Your task to perform on an android device: Go to network settings Image 0: 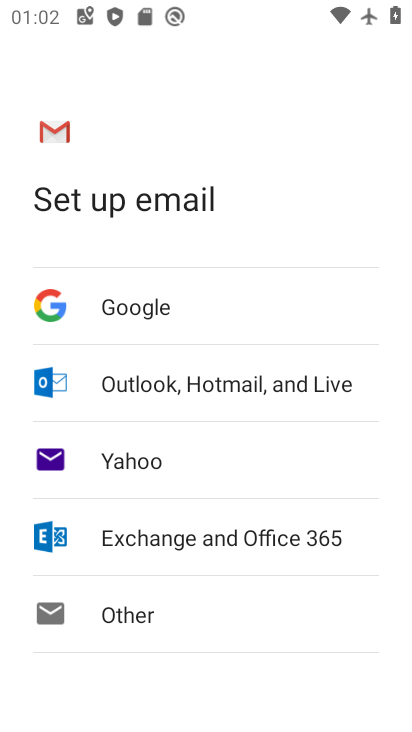
Step 0: press home button
Your task to perform on an android device: Go to network settings Image 1: 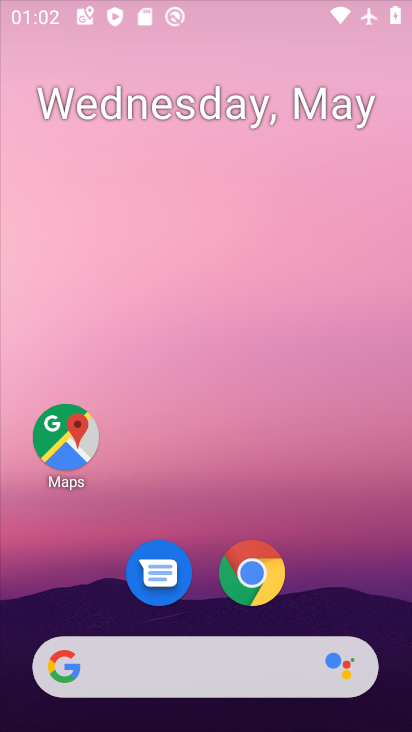
Step 1: drag from (304, 626) to (319, 136)
Your task to perform on an android device: Go to network settings Image 2: 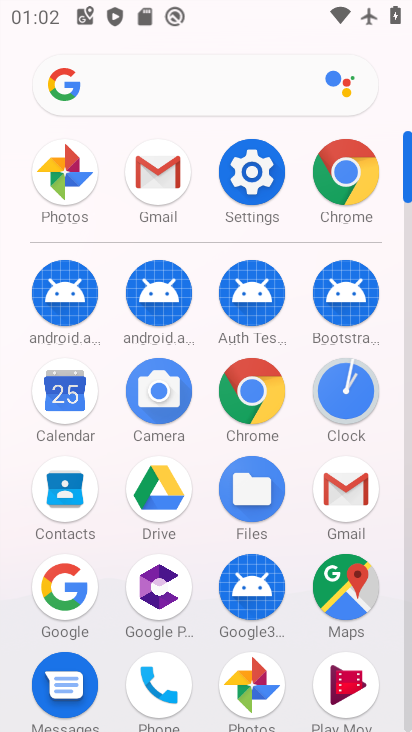
Step 2: click (247, 160)
Your task to perform on an android device: Go to network settings Image 3: 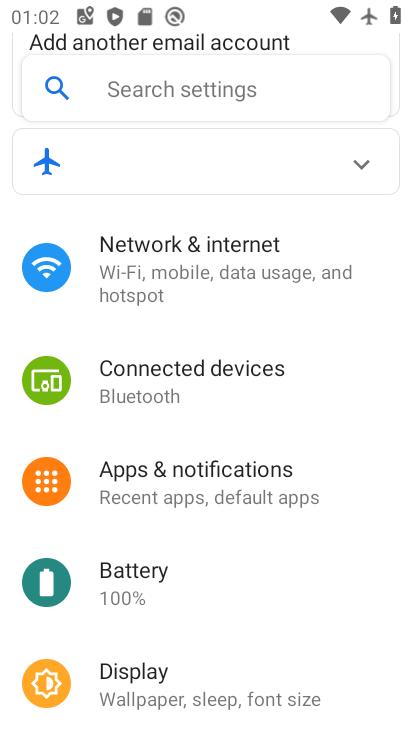
Step 3: click (191, 247)
Your task to perform on an android device: Go to network settings Image 4: 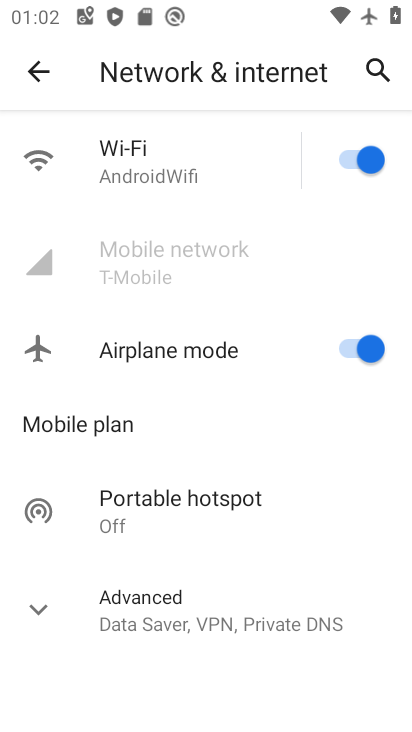
Step 4: task complete